Your task to perform on an android device: Open network settings Image 0: 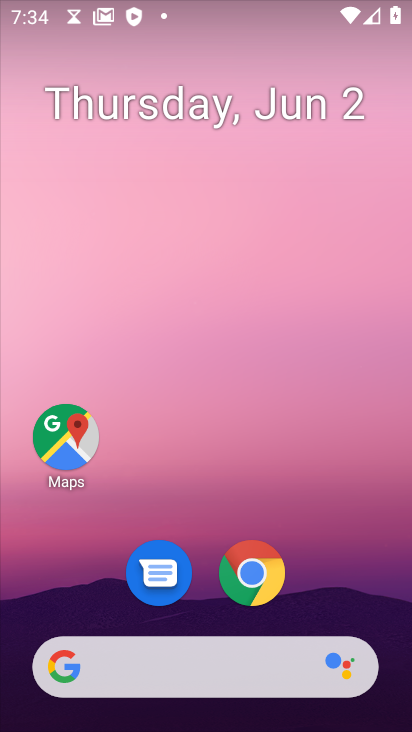
Step 0: press home button
Your task to perform on an android device: Open network settings Image 1: 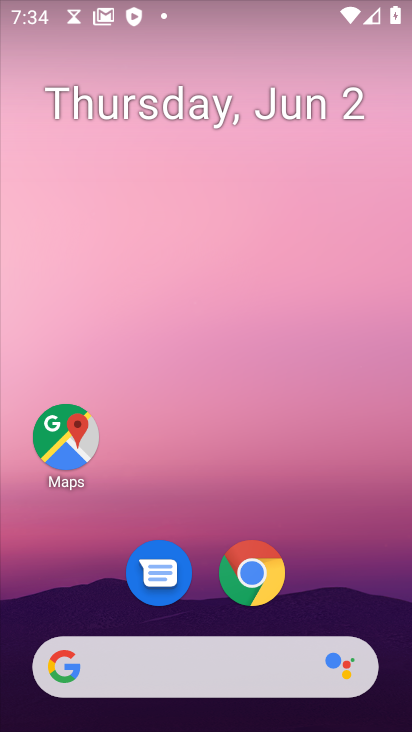
Step 1: drag from (203, 674) to (400, 100)
Your task to perform on an android device: Open network settings Image 2: 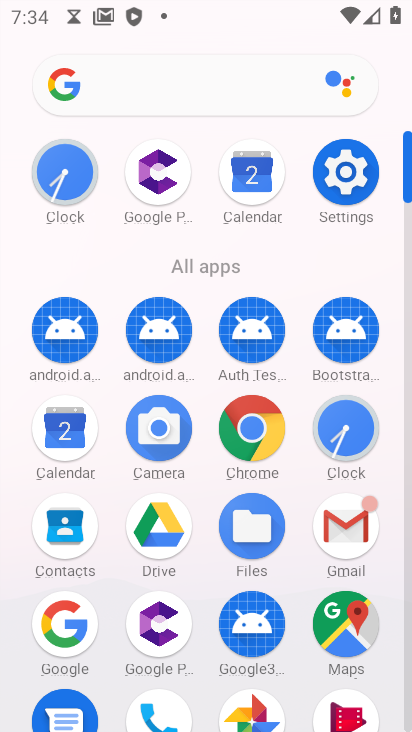
Step 2: click (341, 184)
Your task to perform on an android device: Open network settings Image 3: 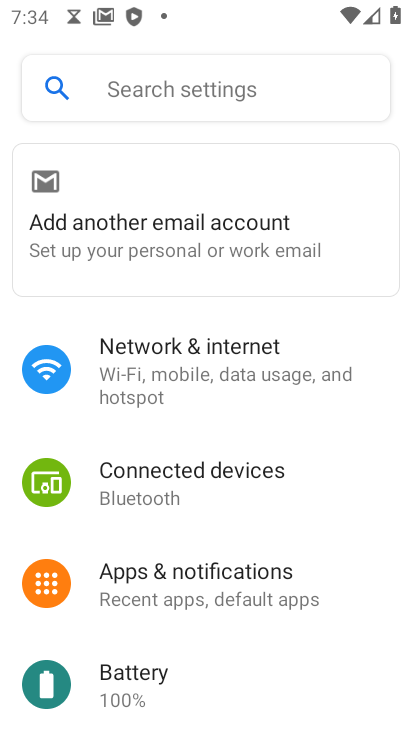
Step 3: click (201, 354)
Your task to perform on an android device: Open network settings Image 4: 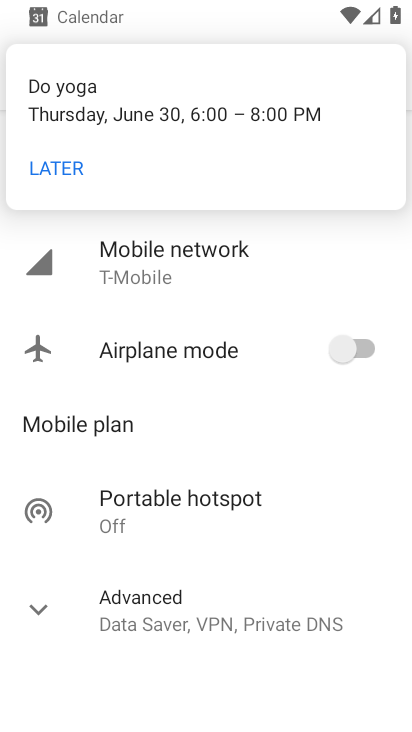
Step 4: task complete